Your task to perform on an android device: Go to internet settings Image 0: 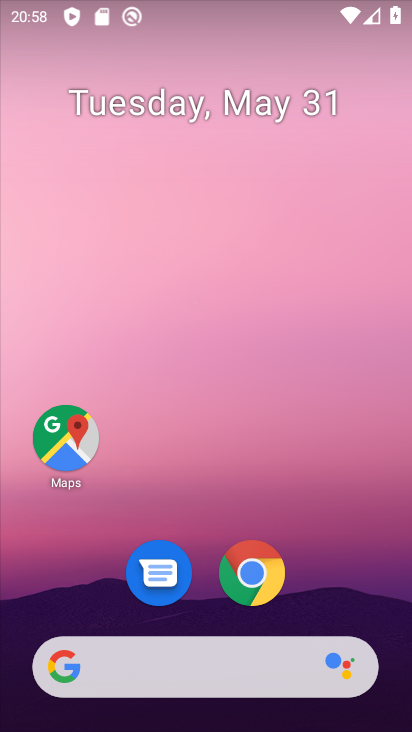
Step 0: drag from (309, 410) to (284, 105)
Your task to perform on an android device: Go to internet settings Image 1: 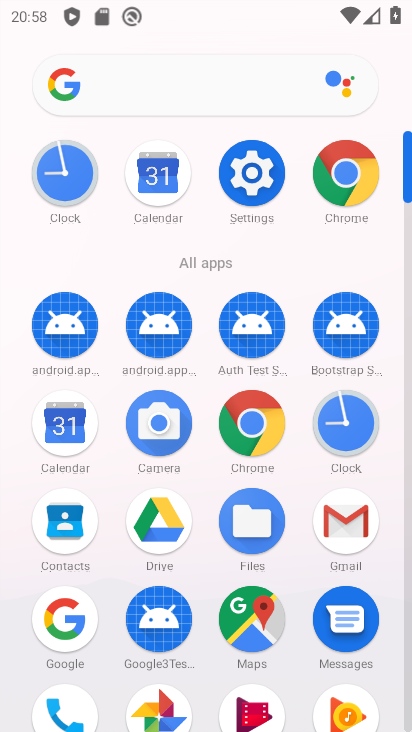
Step 1: click (252, 167)
Your task to perform on an android device: Go to internet settings Image 2: 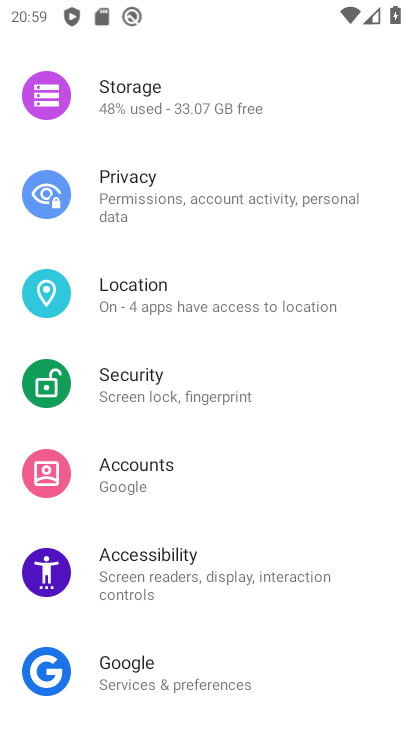
Step 2: drag from (198, 216) to (220, 575)
Your task to perform on an android device: Go to internet settings Image 3: 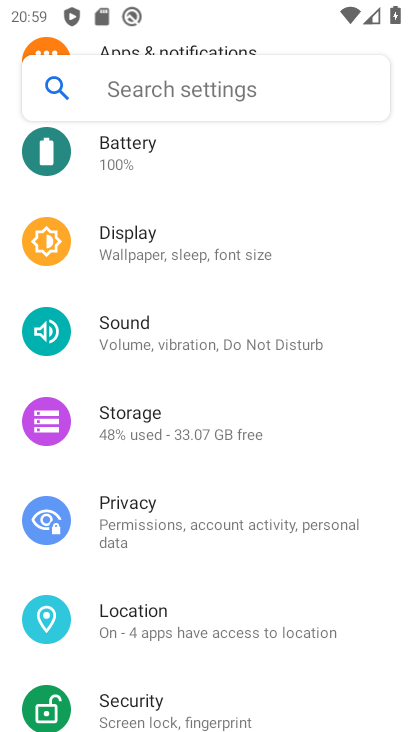
Step 3: drag from (202, 220) to (206, 576)
Your task to perform on an android device: Go to internet settings Image 4: 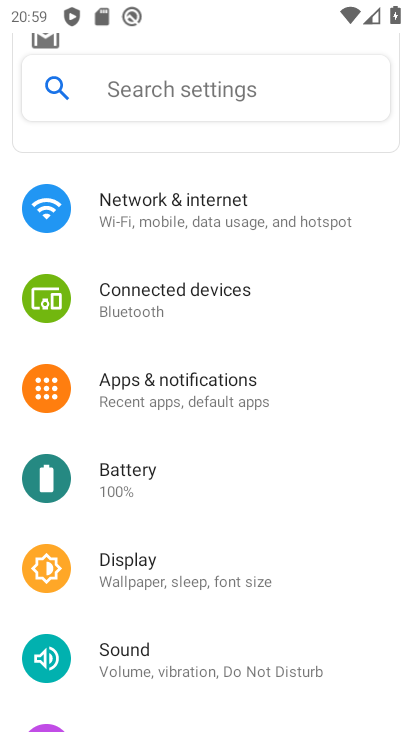
Step 4: click (187, 220)
Your task to perform on an android device: Go to internet settings Image 5: 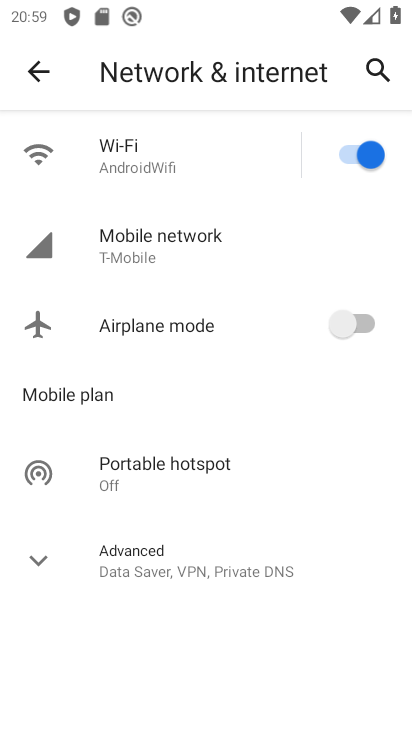
Step 5: task complete